Your task to perform on an android device: Open settings Image 0: 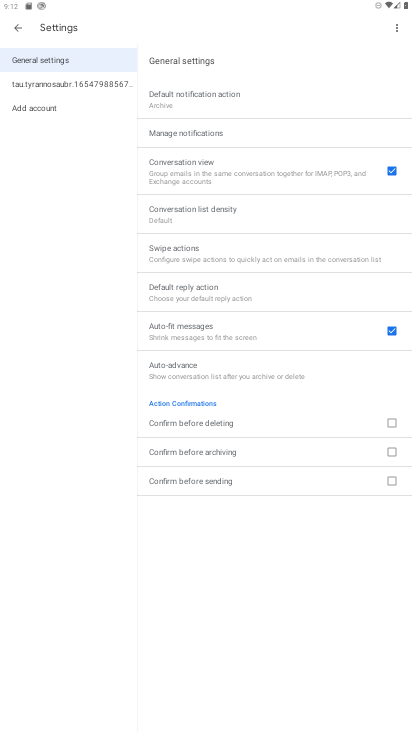
Step 0: press home button
Your task to perform on an android device: Open settings Image 1: 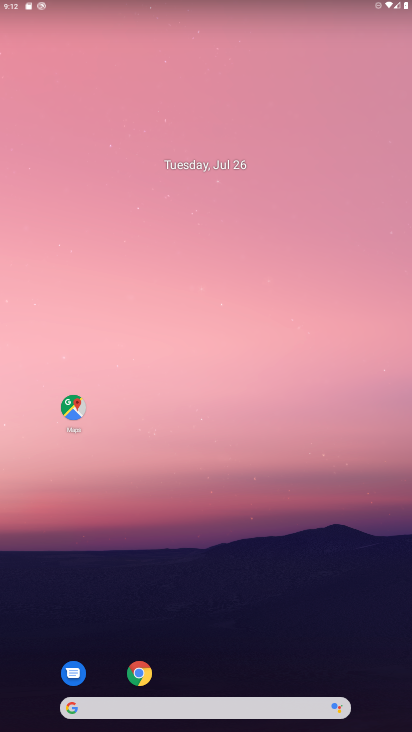
Step 1: drag from (249, 635) to (251, 34)
Your task to perform on an android device: Open settings Image 2: 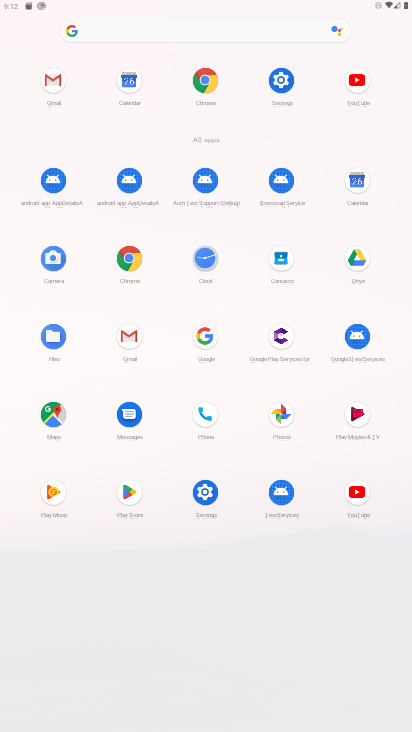
Step 2: click (275, 77)
Your task to perform on an android device: Open settings Image 3: 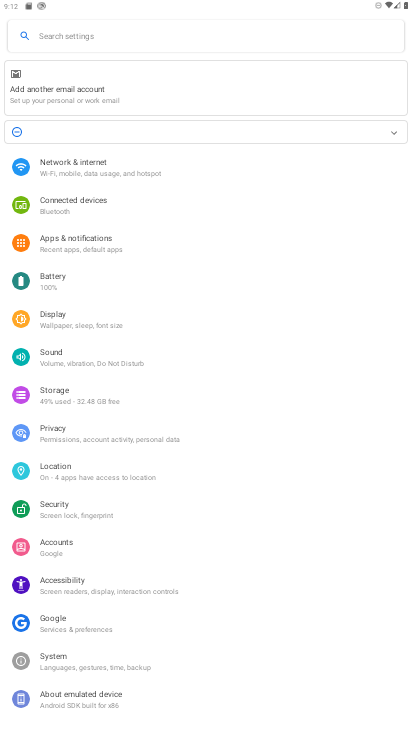
Step 3: task complete